Your task to perform on an android device: turn on the 12-hour format for clock Image 0: 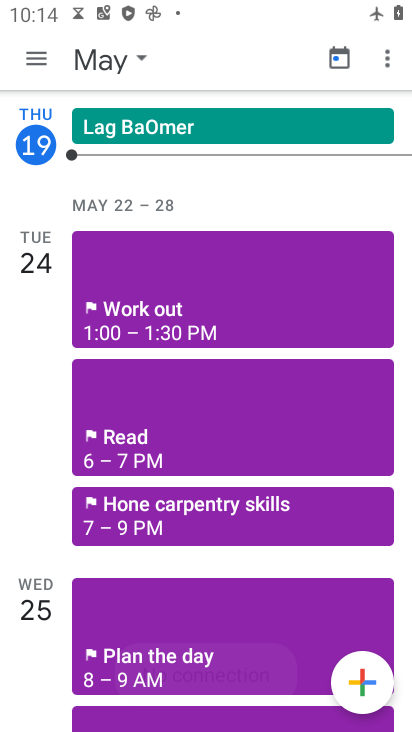
Step 0: press back button
Your task to perform on an android device: turn on the 12-hour format for clock Image 1: 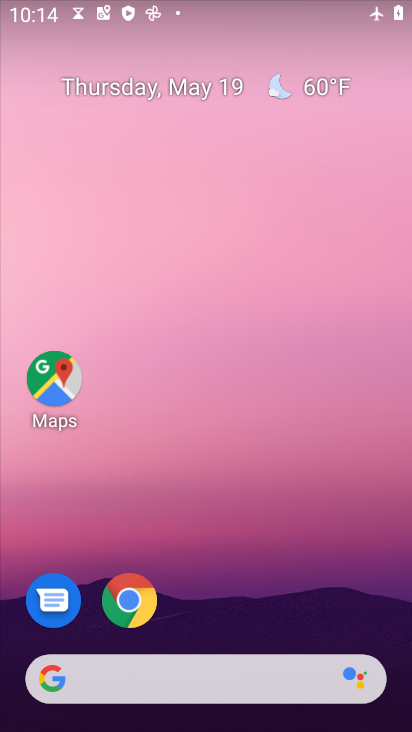
Step 1: drag from (313, 539) to (222, 60)
Your task to perform on an android device: turn on the 12-hour format for clock Image 2: 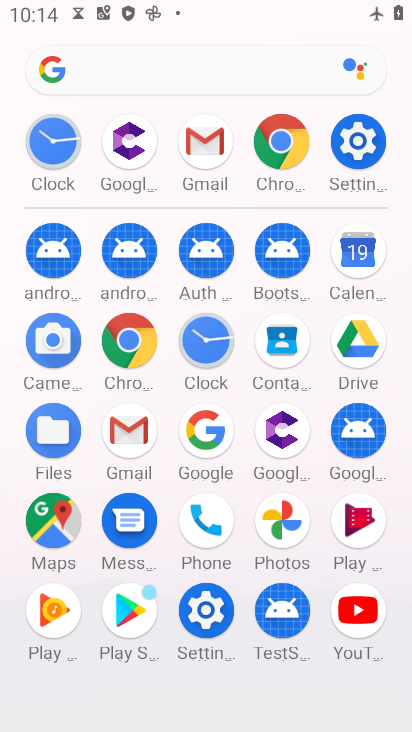
Step 2: drag from (9, 557) to (15, 237)
Your task to perform on an android device: turn on the 12-hour format for clock Image 3: 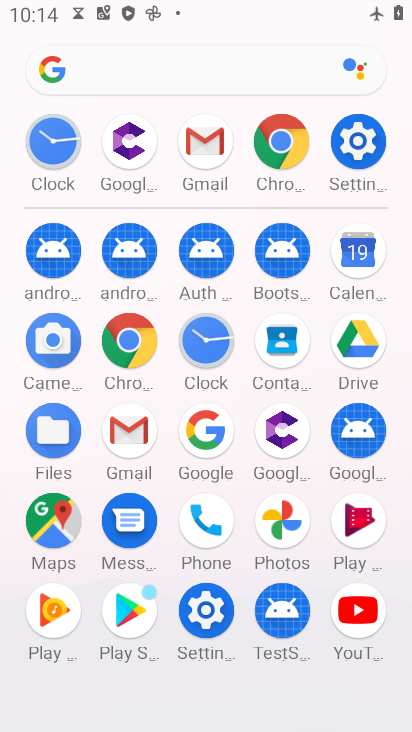
Step 3: click (204, 339)
Your task to perform on an android device: turn on the 12-hour format for clock Image 4: 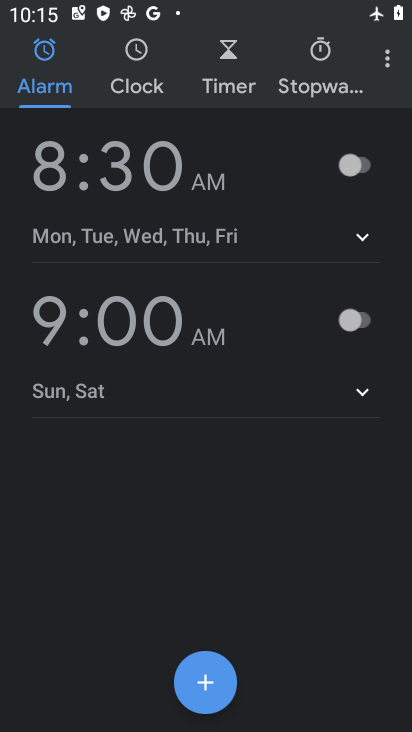
Step 4: drag from (383, 65) to (309, 121)
Your task to perform on an android device: turn on the 12-hour format for clock Image 5: 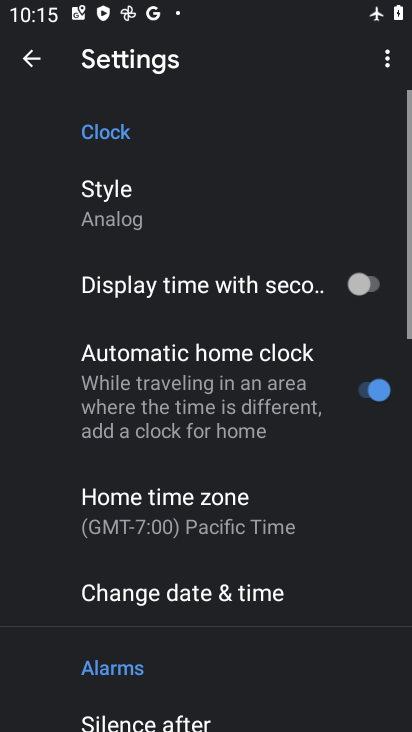
Step 5: drag from (269, 531) to (238, 146)
Your task to perform on an android device: turn on the 12-hour format for clock Image 6: 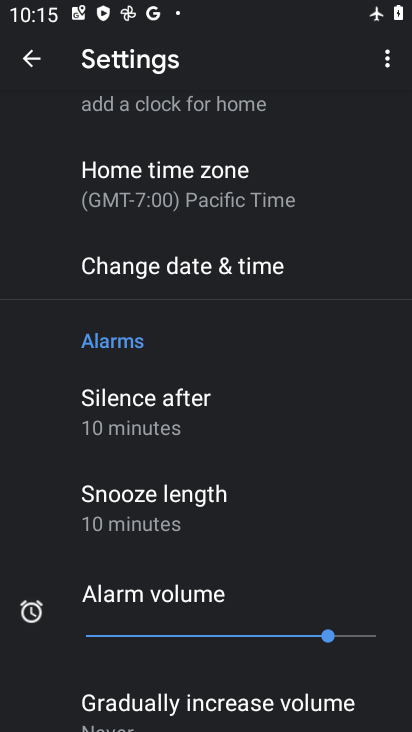
Step 6: click (205, 276)
Your task to perform on an android device: turn on the 12-hour format for clock Image 7: 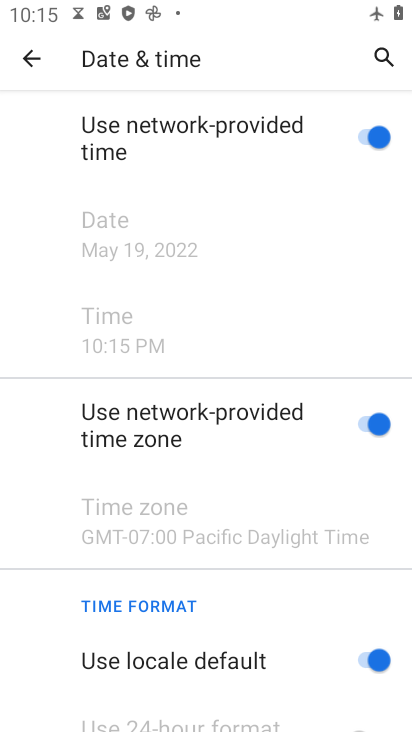
Step 7: task complete